Your task to perform on an android device: all mails in gmail Image 0: 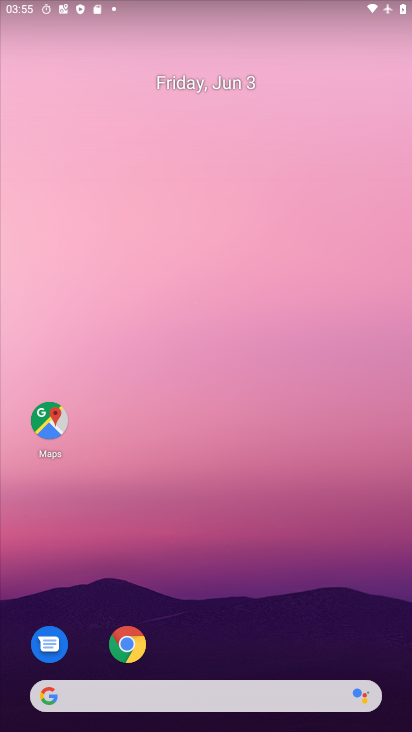
Step 0: drag from (241, 616) to (225, 297)
Your task to perform on an android device: all mails in gmail Image 1: 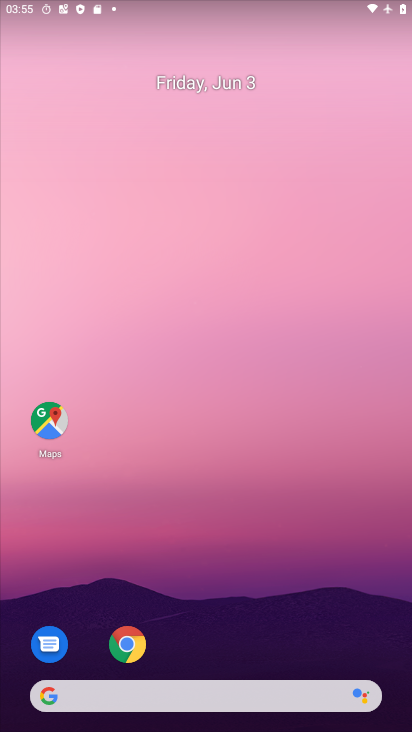
Step 1: drag from (198, 664) to (206, 157)
Your task to perform on an android device: all mails in gmail Image 2: 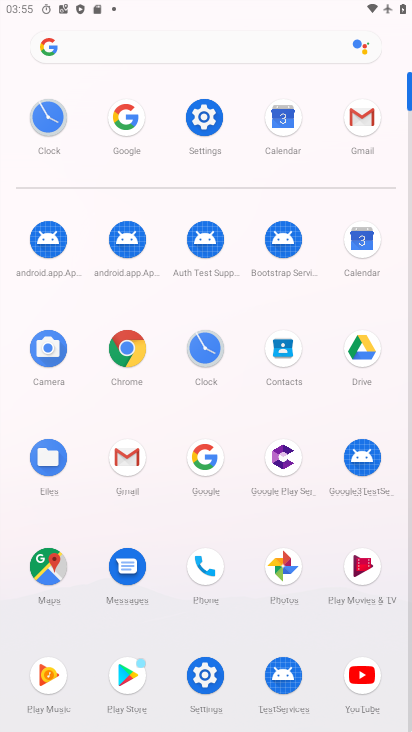
Step 2: click (368, 108)
Your task to perform on an android device: all mails in gmail Image 3: 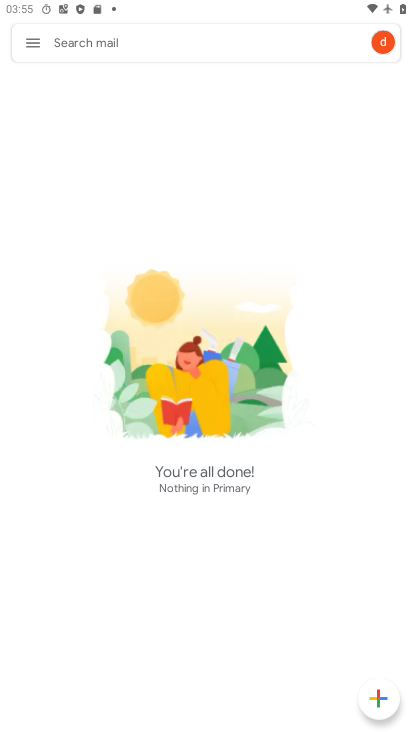
Step 3: click (35, 39)
Your task to perform on an android device: all mails in gmail Image 4: 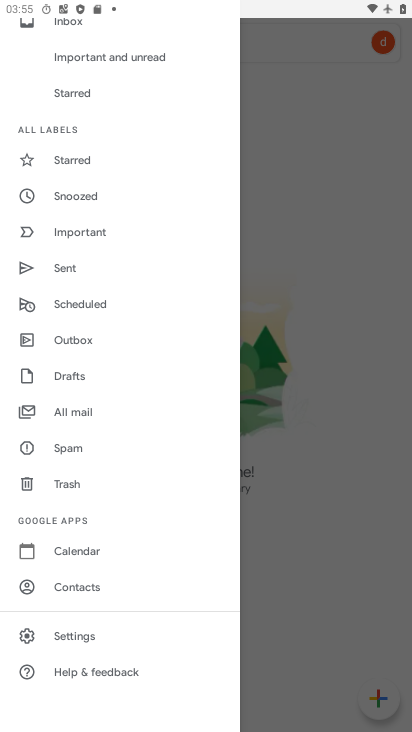
Step 4: click (101, 416)
Your task to perform on an android device: all mails in gmail Image 5: 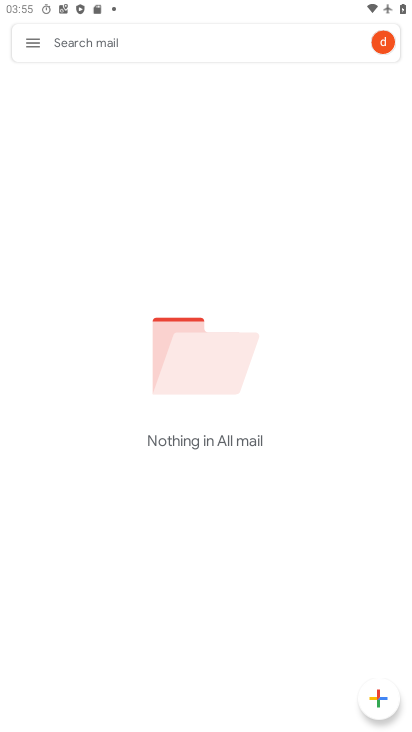
Step 5: task complete